Your task to perform on an android device: What's the weather? Image 0: 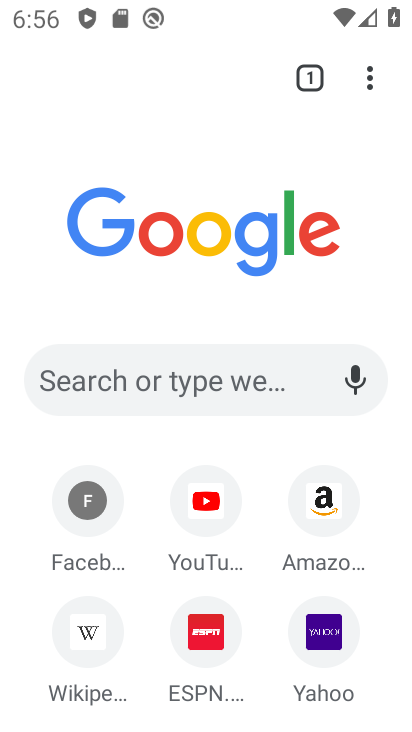
Step 0: click (205, 387)
Your task to perform on an android device: What's the weather? Image 1: 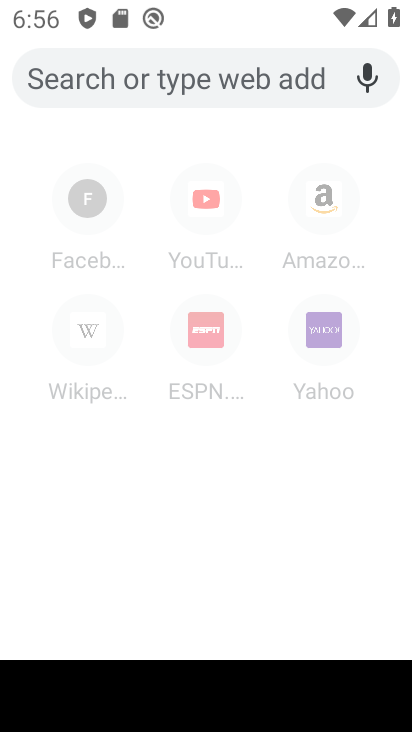
Step 1: type "weather"
Your task to perform on an android device: What's the weather? Image 2: 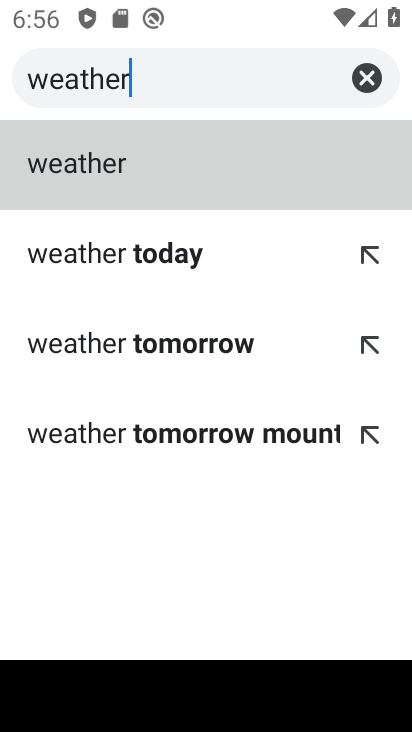
Step 2: click (149, 166)
Your task to perform on an android device: What's the weather? Image 3: 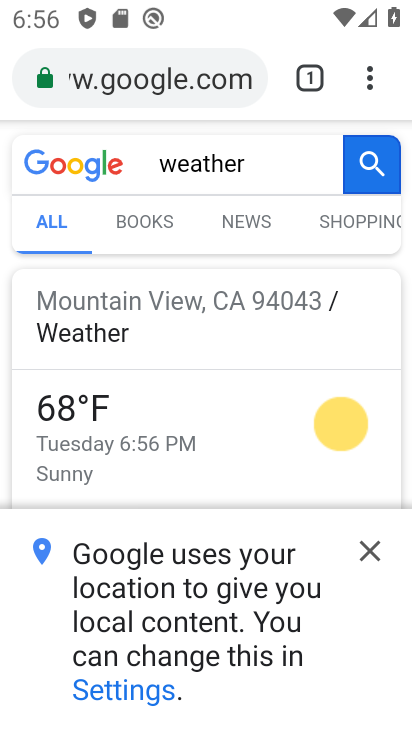
Step 3: task complete